Your task to perform on an android device: delete the emails in spam in the gmail app Image 0: 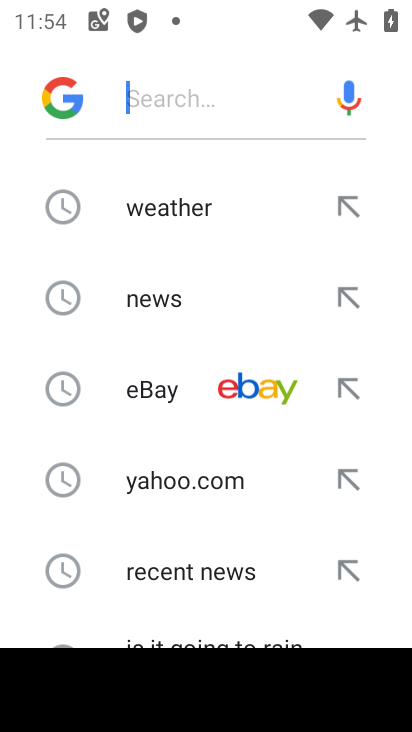
Step 0: press home button
Your task to perform on an android device: delete the emails in spam in the gmail app Image 1: 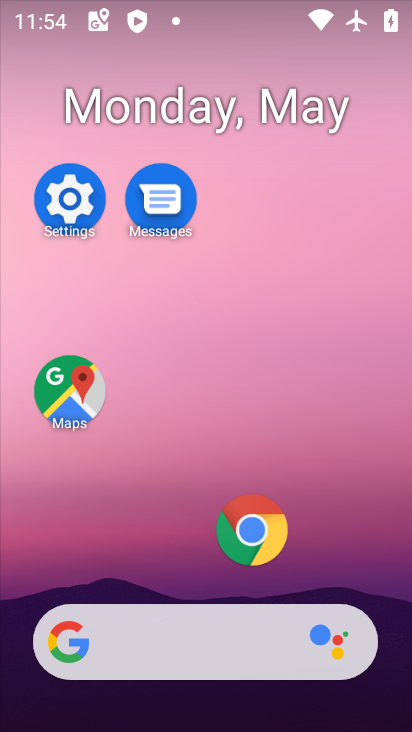
Step 1: drag from (218, 570) to (258, 203)
Your task to perform on an android device: delete the emails in spam in the gmail app Image 2: 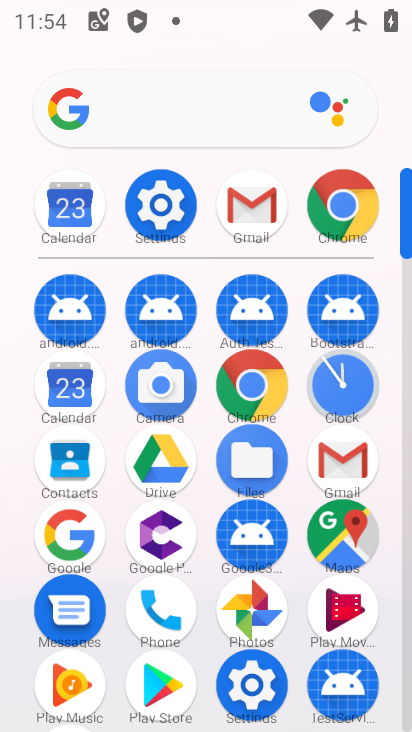
Step 2: click (338, 471)
Your task to perform on an android device: delete the emails in spam in the gmail app Image 3: 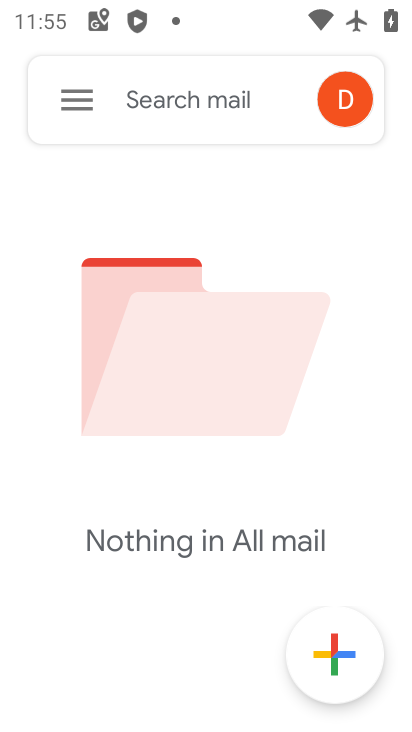
Step 3: click (56, 112)
Your task to perform on an android device: delete the emails in spam in the gmail app Image 4: 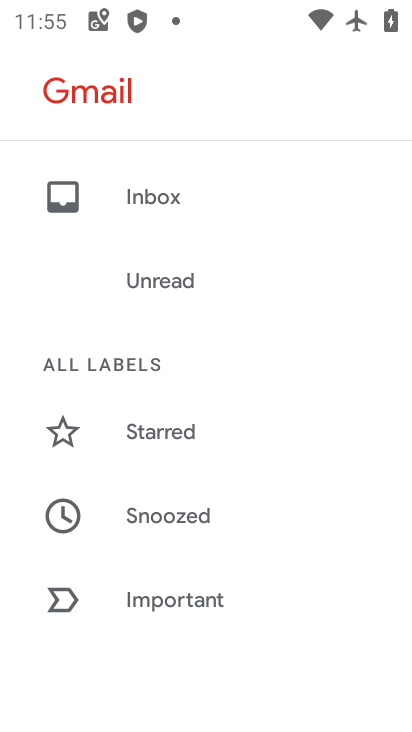
Step 4: drag from (178, 512) to (196, 160)
Your task to perform on an android device: delete the emails in spam in the gmail app Image 5: 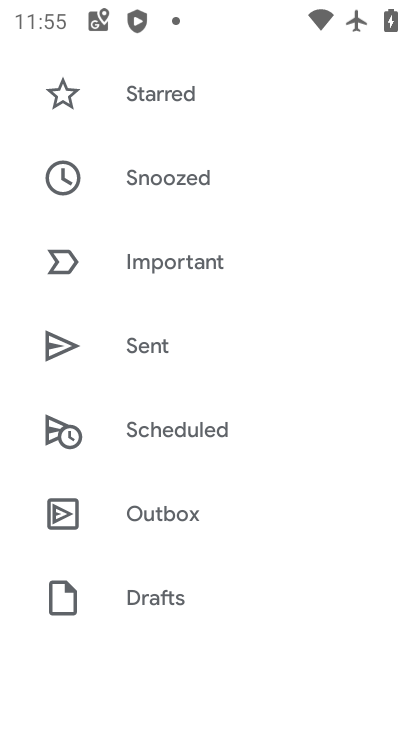
Step 5: drag from (198, 569) to (211, 159)
Your task to perform on an android device: delete the emails in spam in the gmail app Image 6: 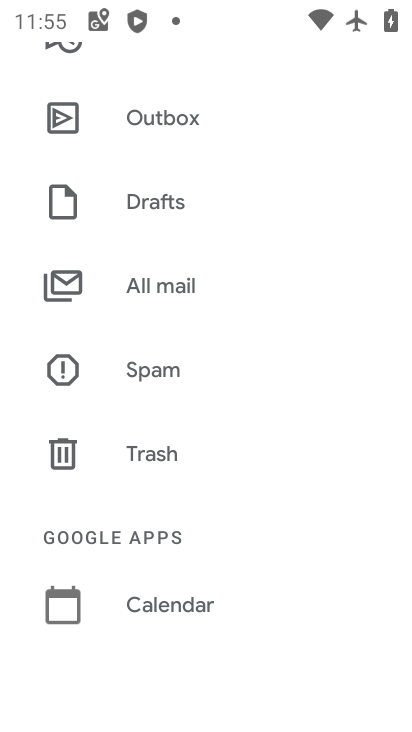
Step 6: click (155, 384)
Your task to perform on an android device: delete the emails in spam in the gmail app Image 7: 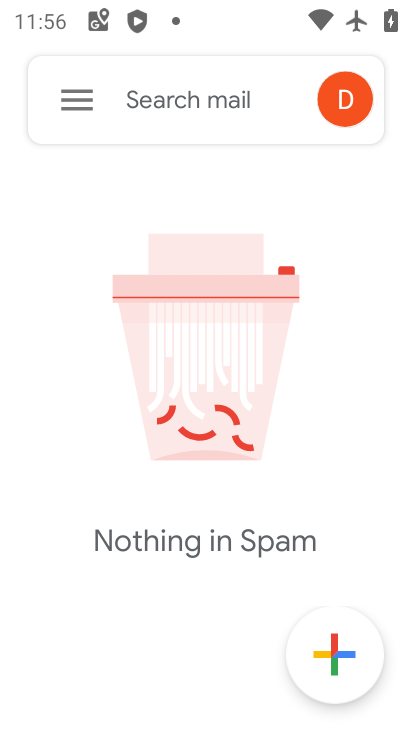
Step 7: task complete